Your task to perform on an android device: turn on wifi Image 0: 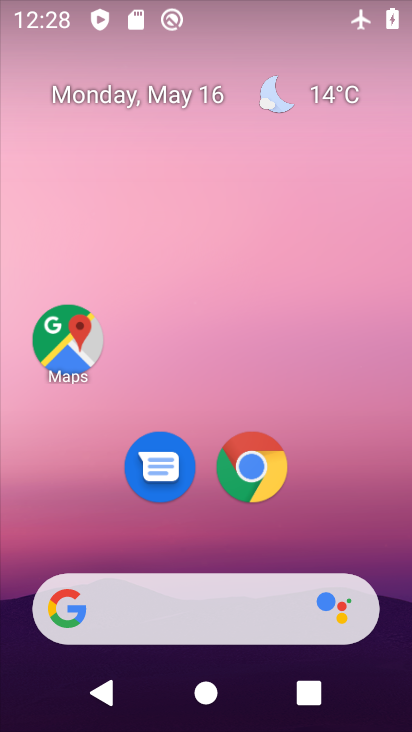
Step 0: drag from (260, 547) to (402, 161)
Your task to perform on an android device: turn on wifi Image 1: 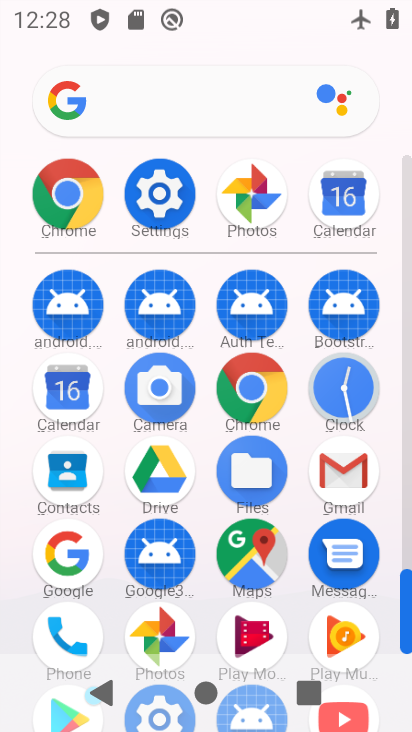
Step 1: click (170, 172)
Your task to perform on an android device: turn on wifi Image 2: 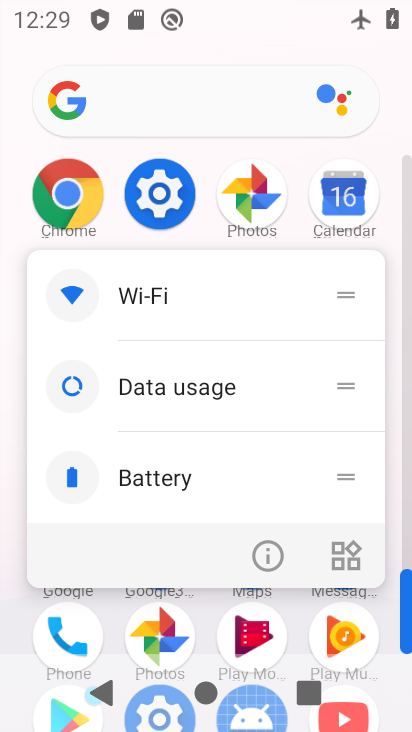
Step 2: click (144, 301)
Your task to perform on an android device: turn on wifi Image 3: 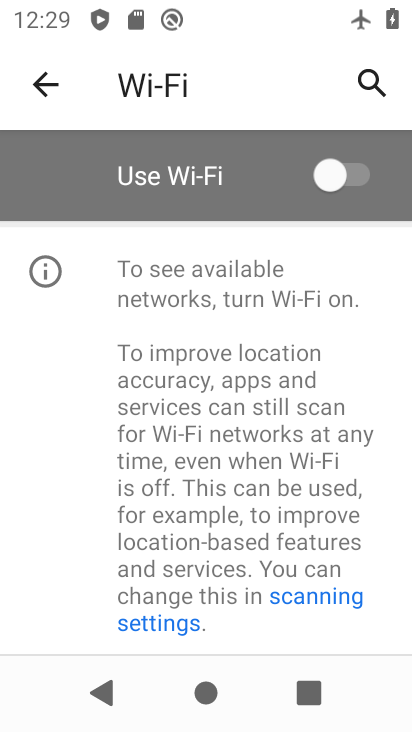
Step 3: click (318, 185)
Your task to perform on an android device: turn on wifi Image 4: 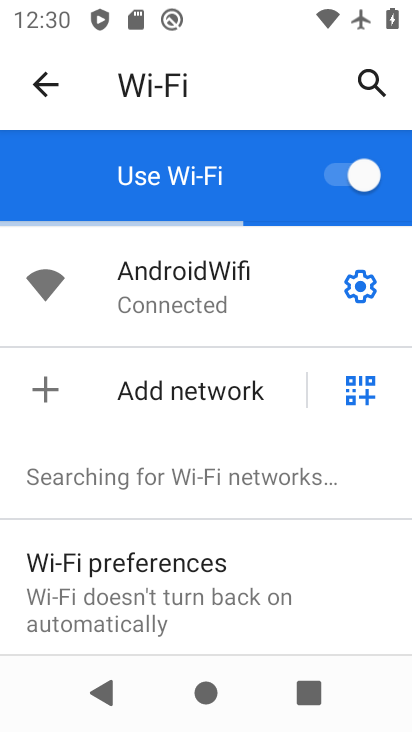
Step 4: task complete